Your task to perform on an android device: open app "Cash App" (install if not already installed) Image 0: 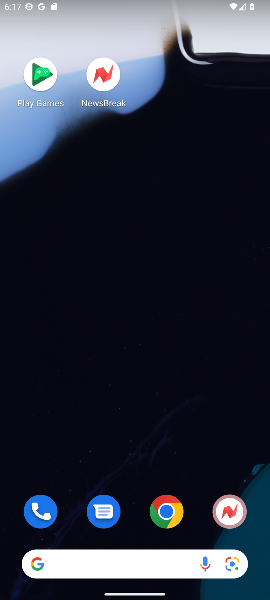
Step 0: drag from (161, 474) to (164, 219)
Your task to perform on an android device: open app "Cash App" (install if not already installed) Image 1: 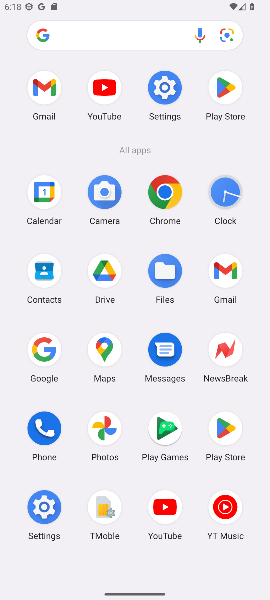
Step 1: click (223, 417)
Your task to perform on an android device: open app "Cash App" (install if not already installed) Image 2: 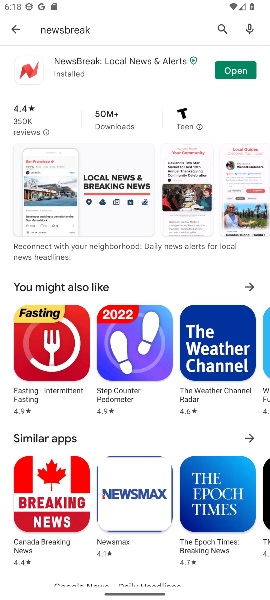
Step 2: click (220, 29)
Your task to perform on an android device: open app "Cash App" (install if not already installed) Image 3: 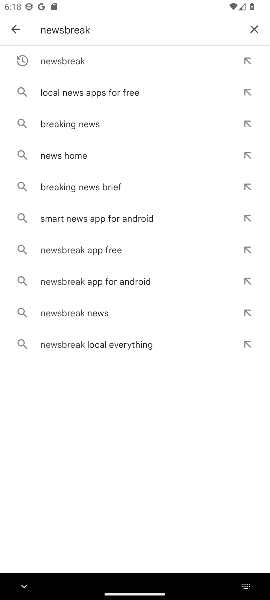
Step 3: click (256, 31)
Your task to perform on an android device: open app "Cash App" (install if not already installed) Image 4: 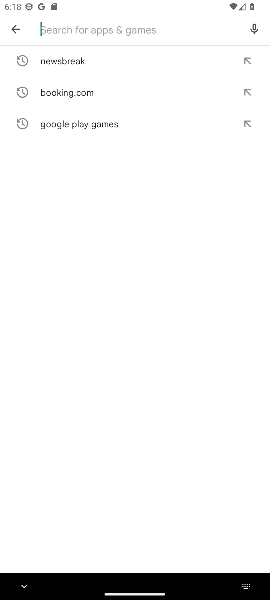
Step 4: type "cash app"
Your task to perform on an android device: open app "Cash App" (install if not already installed) Image 5: 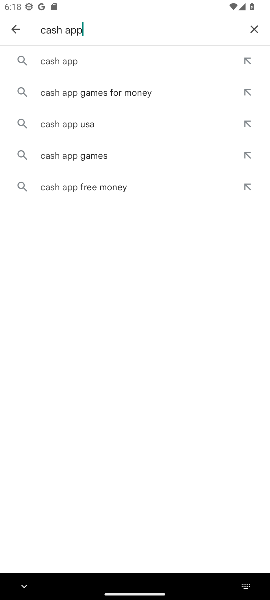
Step 5: click (152, 58)
Your task to perform on an android device: open app "Cash App" (install if not already installed) Image 6: 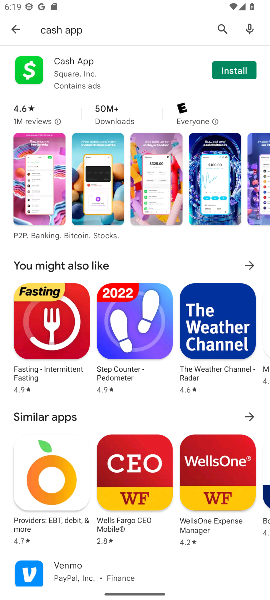
Step 6: click (231, 64)
Your task to perform on an android device: open app "Cash App" (install if not already installed) Image 7: 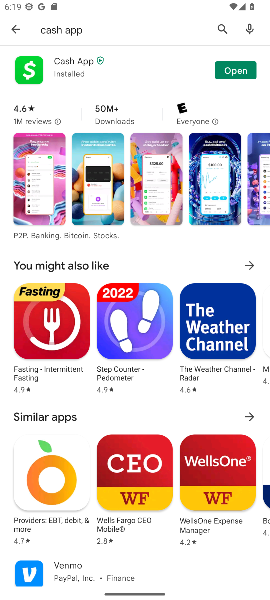
Step 7: click (225, 66)
Your task to perform on an android device: open app "Cash App" (install if not already installed) Image 8: 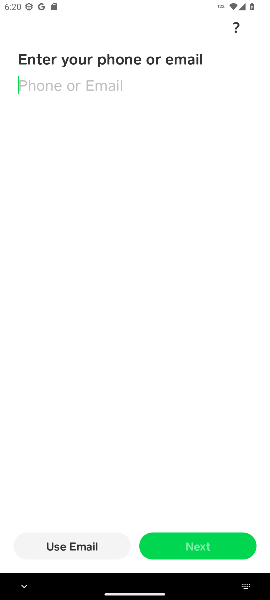
Step 8: task complete